Your task to perform on an android device: Go to wifi settings Image 0: 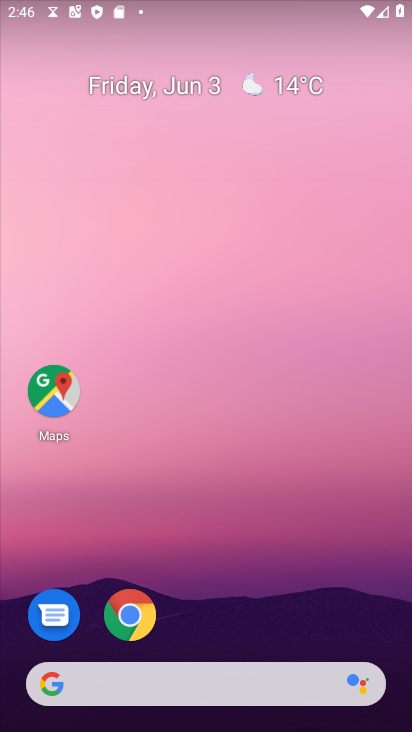
Step 0: press home button
Your task to perform on an android device: Go to wifi settings Image 1: 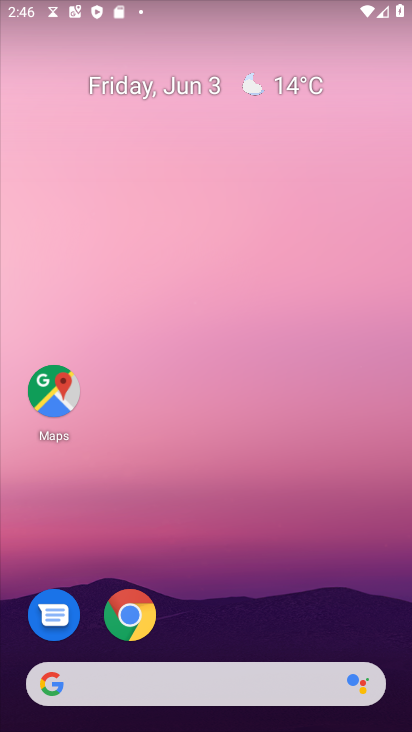
Step 1: drag from (273, 542) to (260, 77)
Your task to perform on an android device: Go to wifi settings Image 2: 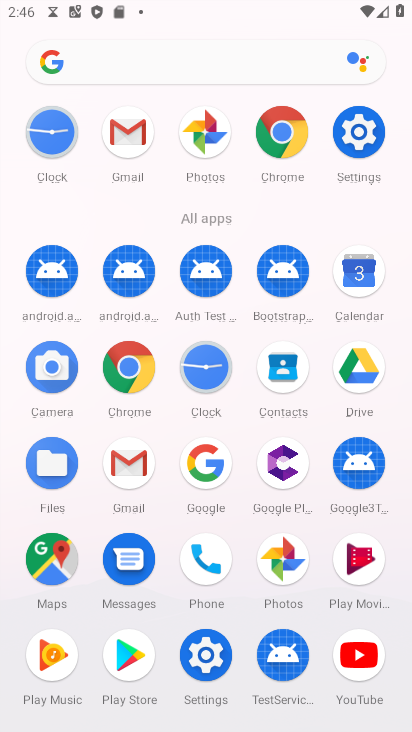
Step 2: click (359, 137)
Your task to perform on an android device: Go to wifi settings Image 3: 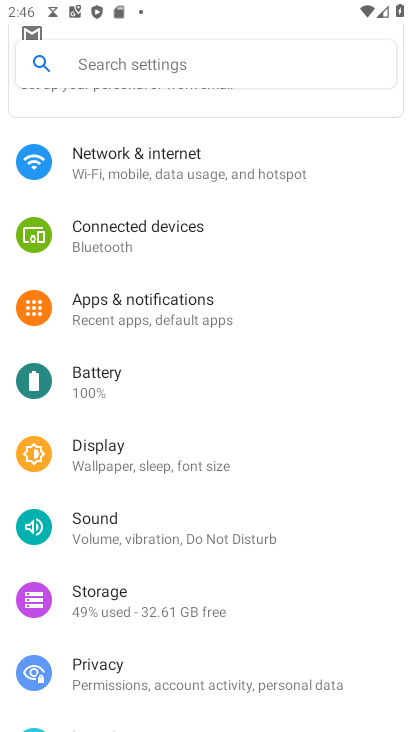
Step 3: click (161, 178)
Your task to perform on an android device: Go to wifi settings Image 4: 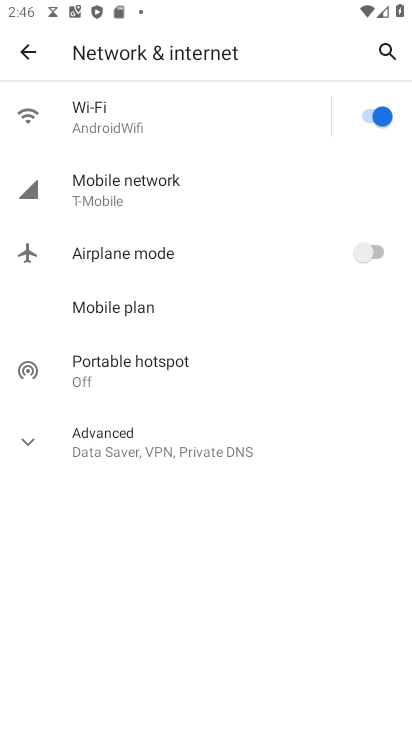
Step 4: click (101, 104)
Your task to perform on an android device: Go to wifi settings Image 5: 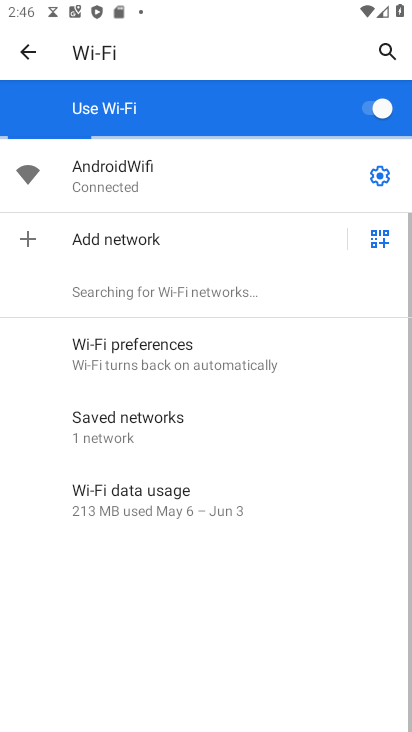
Step 5: task complete